Your task to perform on an android device: change the upload size in google photos Image 0: 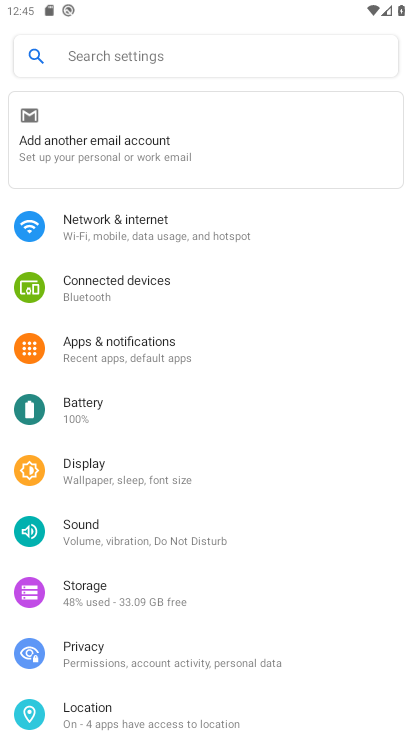
Step 0: press back button
Your task to perform on an android device: change the upload size in google photos Image 1: 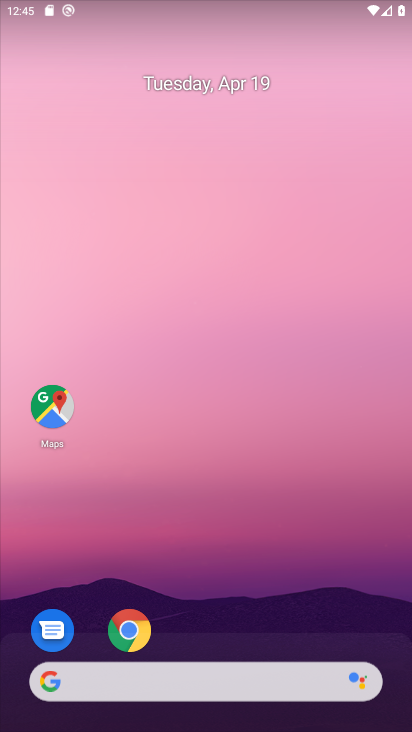
Step 1: drag from (174, 649) to (242, 126)
Your task to perform on an android device: change the upload size in google photos Image 2: 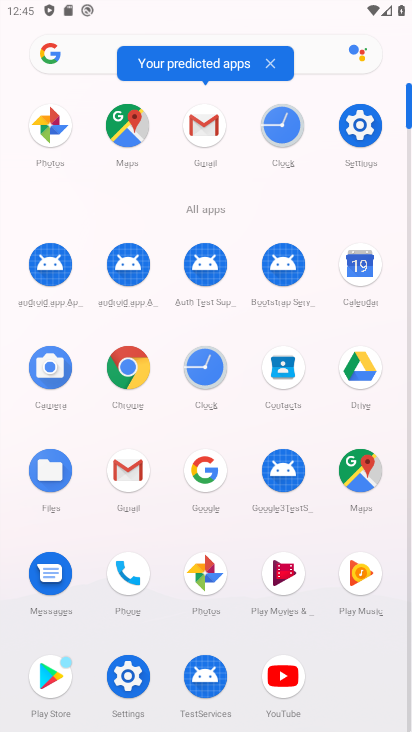
Step 2: click (217, 574)
Your task to perform on an android device: change the upload size in google photos Image 3: 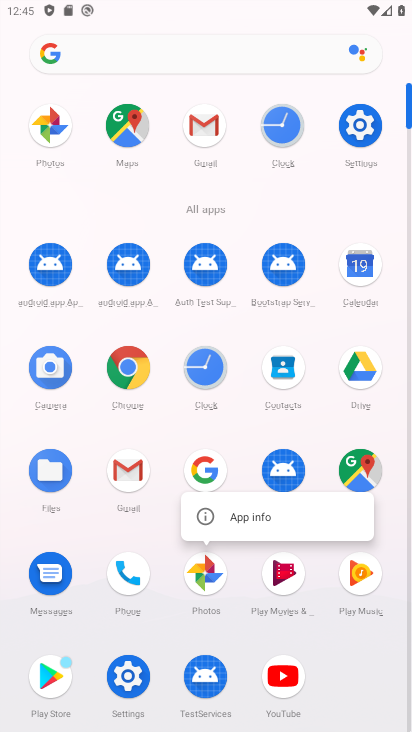
Step 3: click (204, 574)
Your task to perform on an android device: change the upload size in google photos Image 4: 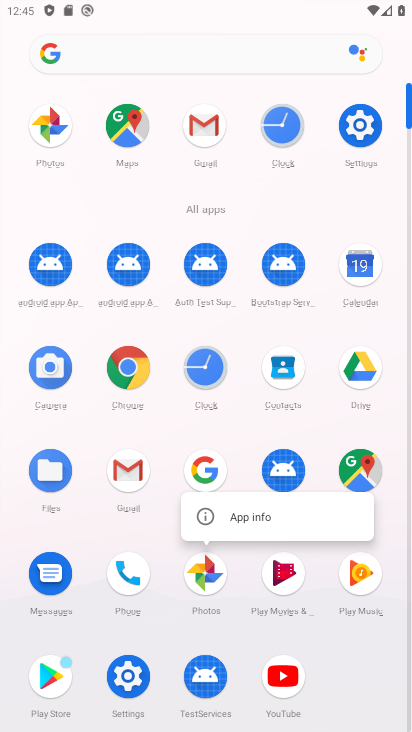
Step 4: click (202, 573)
Your task to perform on an android device: change the upload size in google photos Image 5: 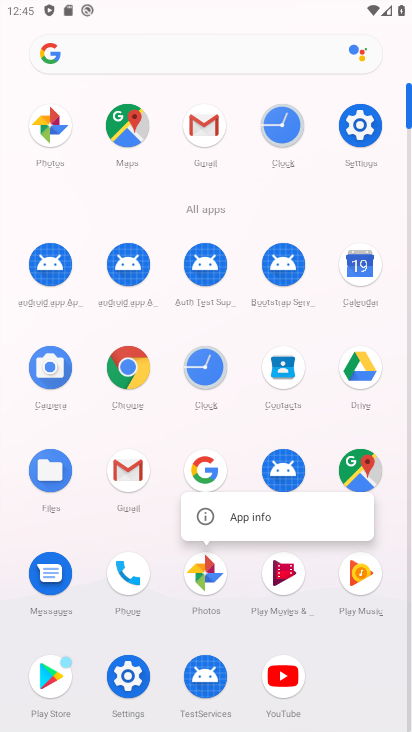
Step 5: click (201, 576)
Your task to perform on an android device: change the upload size in google photos Image 6: 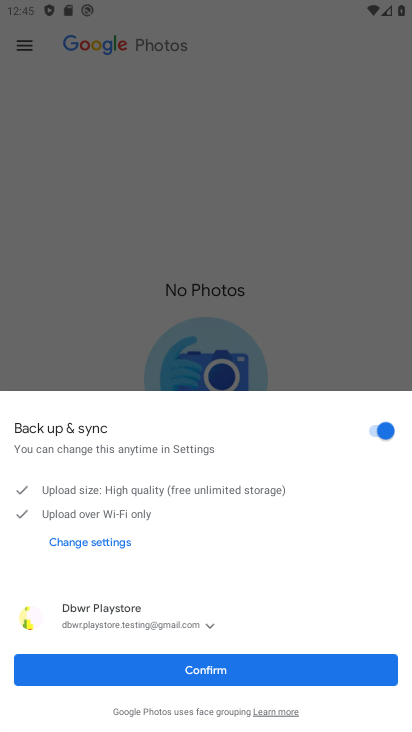
Step 6: click (208, 676)
Your task to perform on an android device: change the upload size in google photos Image 7: 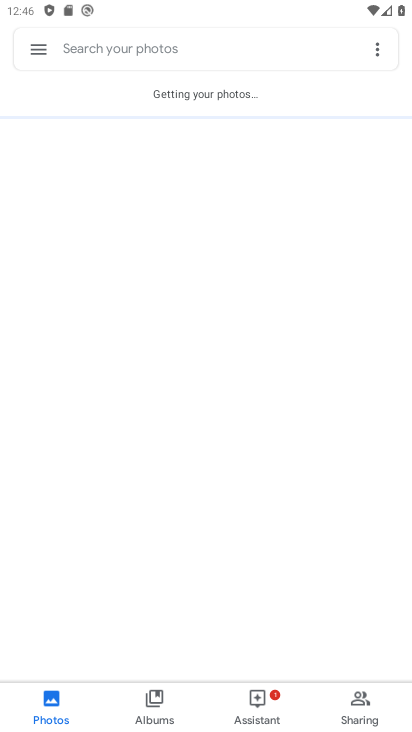
Step 7: click (48, 50)
Your task to perform on an android device: change the upload size in google photos Image 8: 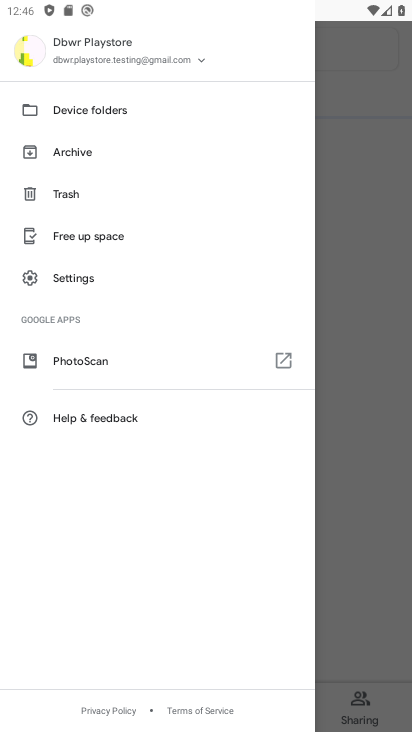
Step 8: click (133, 272)
Your task to perform on an android device: change the upload size in google photos Image 9: 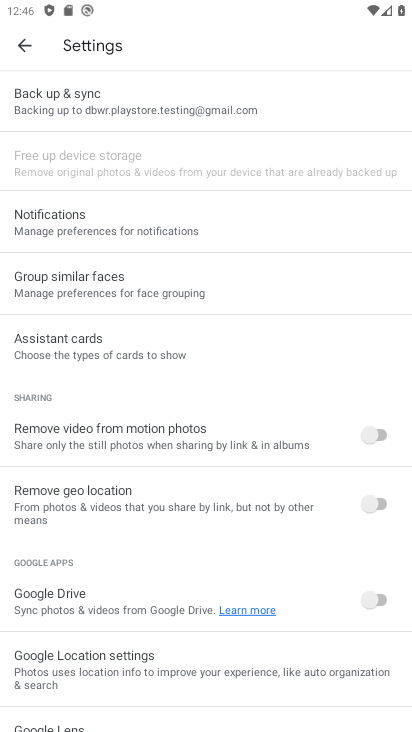
Step 9: click (169, 113)
Your task to perform on an android device: change the upload size in google photos Image 10: 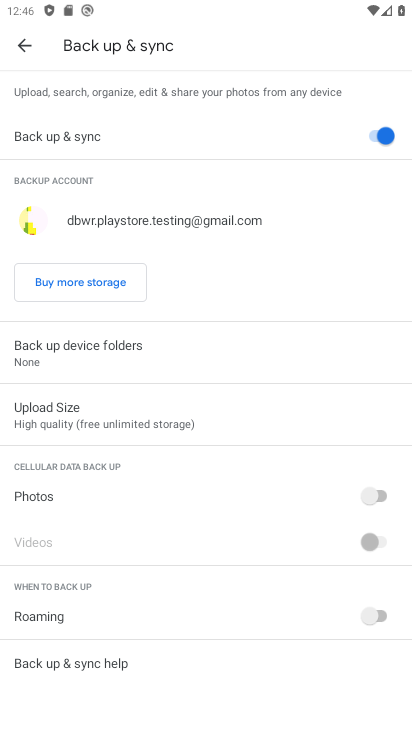
Step 10: click (206, 427)
Your task to perform on an android device: change the upload size in google photos Image 11: 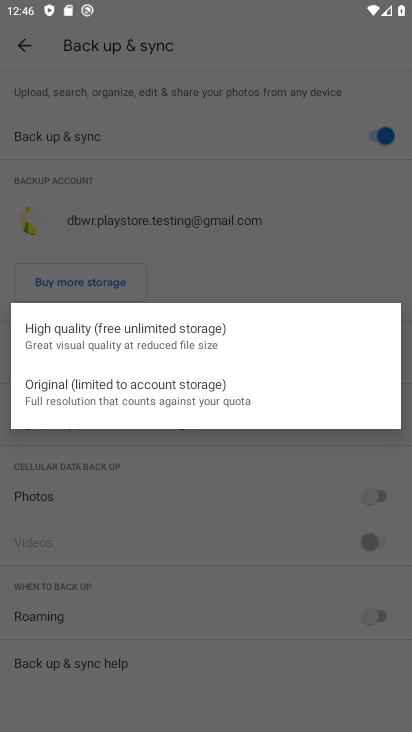
Step 11: click (203, 406)
Your task to perform on an android device: change the upload size in google photos Image 12: 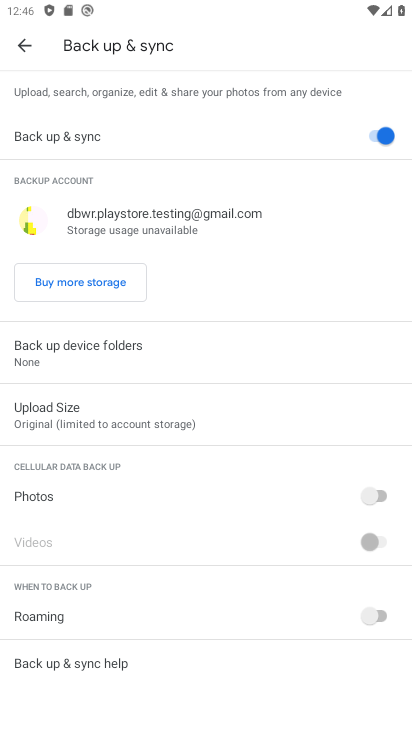
Step 12: task complete